Your task to perform on an android device: Open wifi settings Image 0: 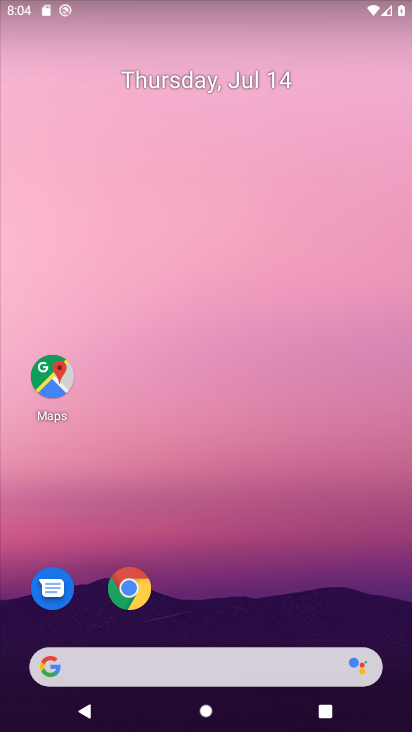
Step 0: drag from (335, 618) to (80, 79)
Your task to perform on an android device: Open wifi settings Image 1: 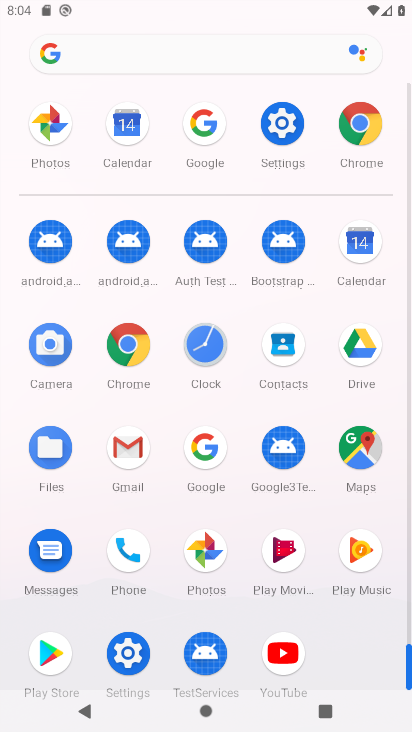
Step 1: click (275, 123)
Your task to perform on an android device: Open wifi settings Image 2: 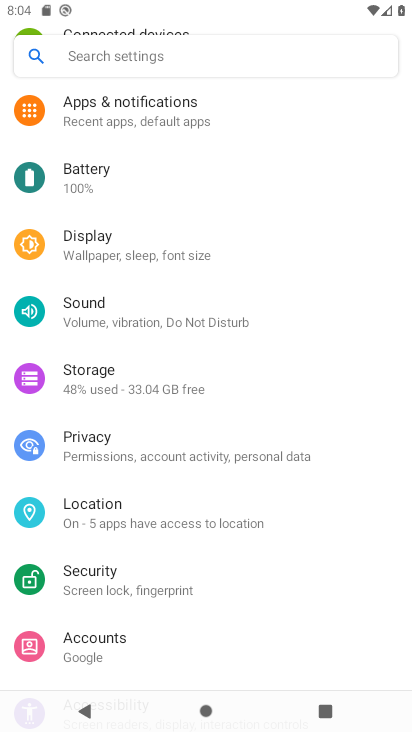
Step 2: drag from (338, 196) to (355, 344)
Your task to perform on an android device: Open wifi settings Image 3: 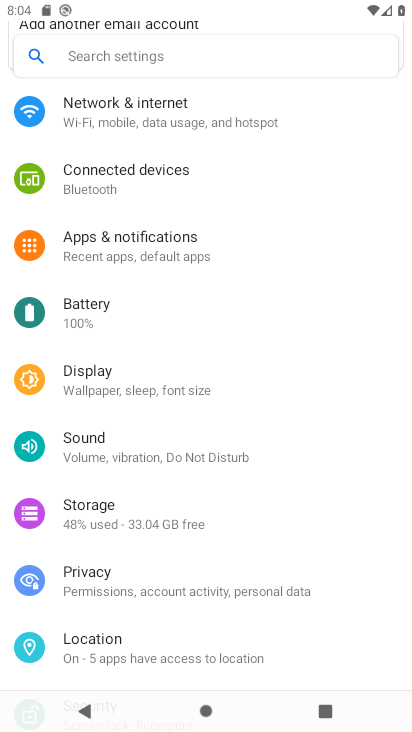
Step 3: drag from (350, 169) to (352, 243)
Your task to perform on an android device: Open wifi settings Image 4: 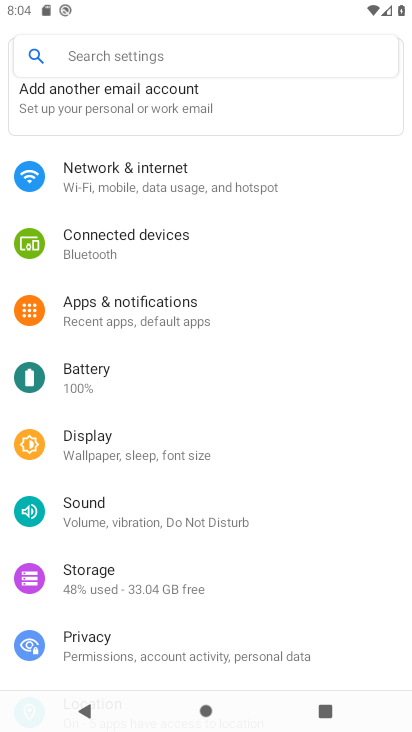
Step 4: drag from (349, 188) to (355, 301)
Your task to perform on an android device: Open wifi settings Image 5: 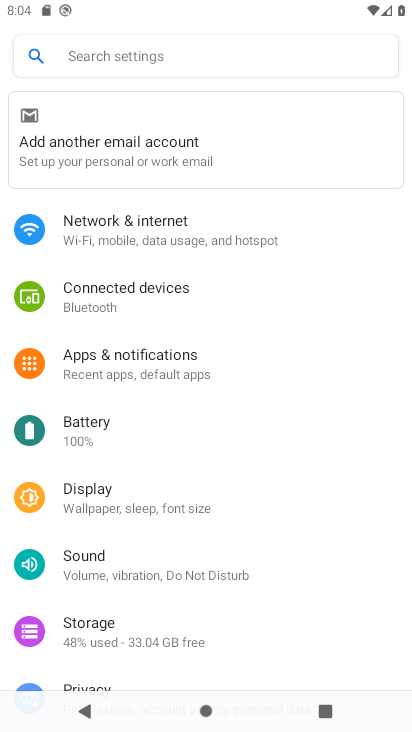
Step 5: drag from (329, 460) to (333, 369)
Your task to perform on an android device: Open wifi settings Image 6: 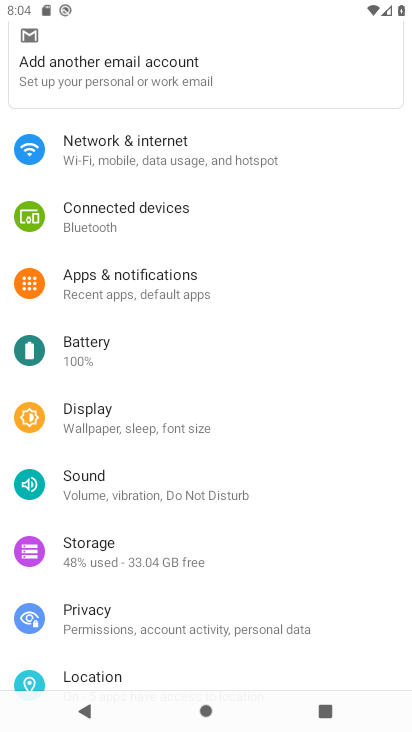
Step 6: drag from (347, 467) to (346, 383)
Your task to perform on an android device: Open wifi settings Image 7: 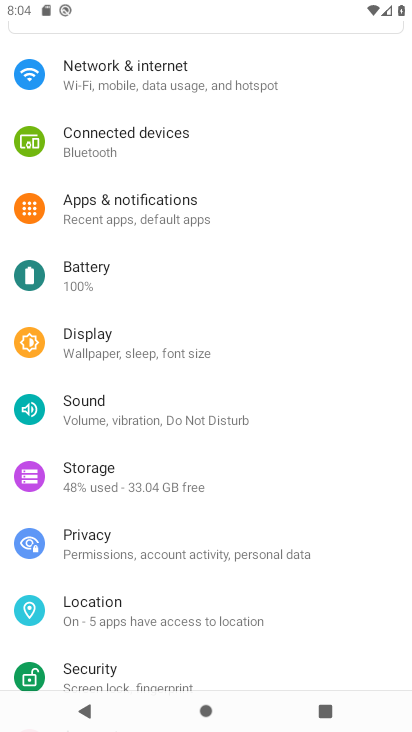
Step 7: drag from (340, 480) to (338, 380)
Your task to perform on an android device: Open wifi settings Image 8: 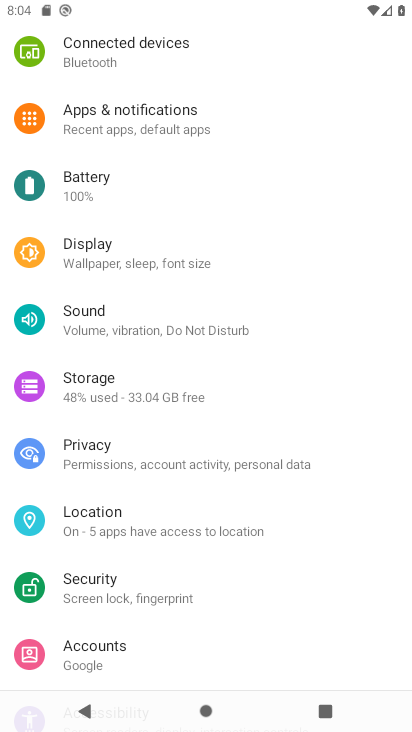
Step 8: drag from (338, 511) to (338, 418)
Your task to perform on an android device: Open wifi settings Image 9: 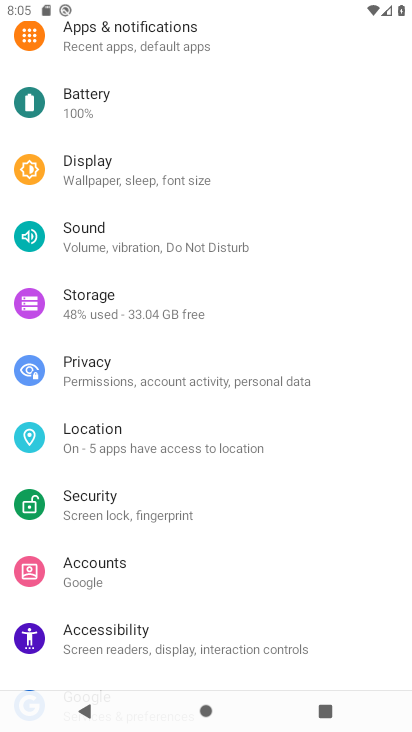
Step 9: drag from (332, 479) to (351, 311)
Your task to perform on an android device: Open wifi settings Image 10: 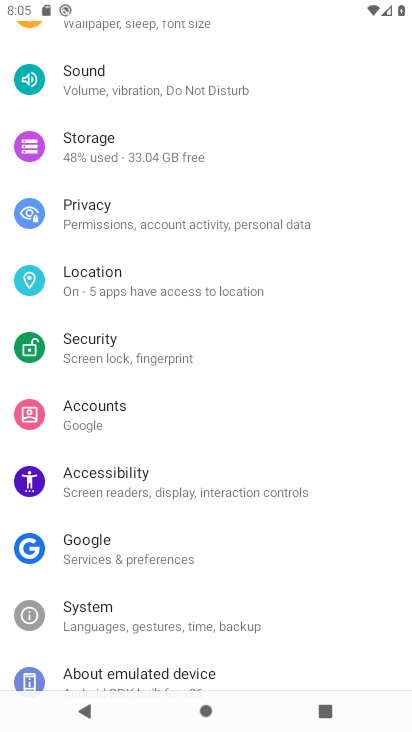
Step 10: drag from (359, 227) to (358, 334)
Your task to perform on an android device: Open wifi settings Image 11: 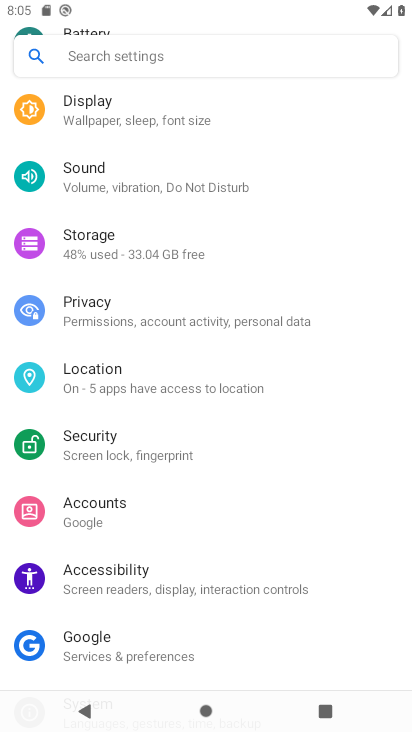
Step 11: drag from (359, 226) to (358, 327)
Your task to perform on an android device: Open wifi settings Image 12: 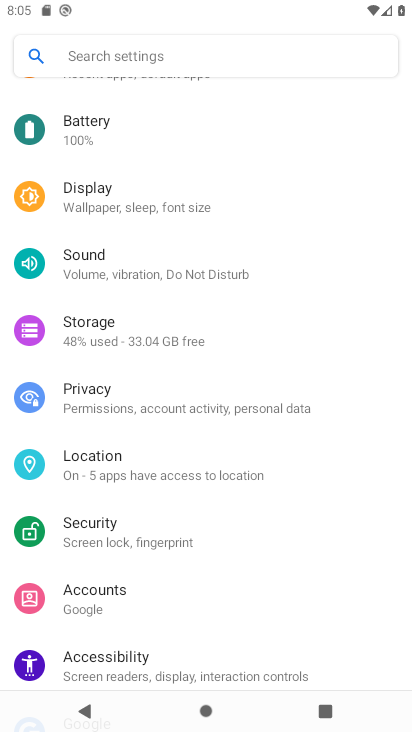
Step 12: drag from (352, 216) to (352, 316)
Your task to perform on an android device: Open wifi settings Image 13: 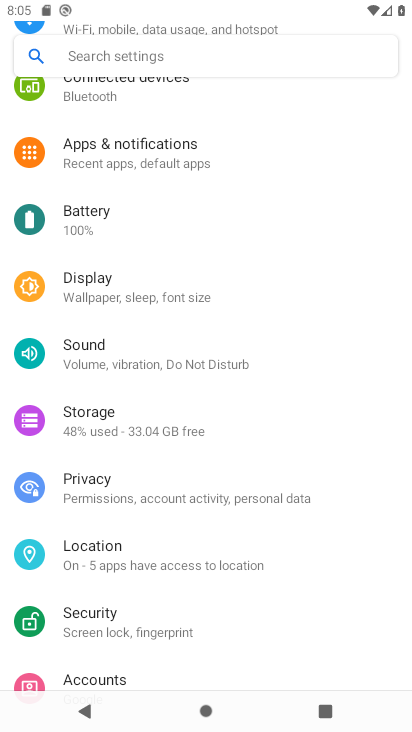
Step 13: drag from (348, 197) to (349, 294)
Your task to perform on an android device: Open wifi settings Image 14: 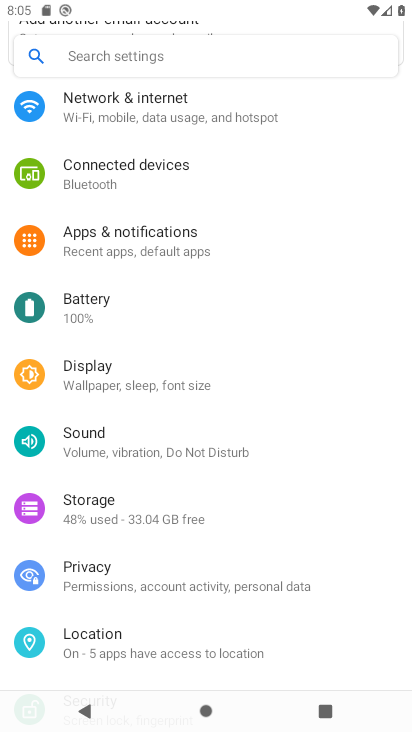
Step 14: drag from (340, 191) to (342, 353)
Your task to perform on an android device: Open wifi settings Image 15: 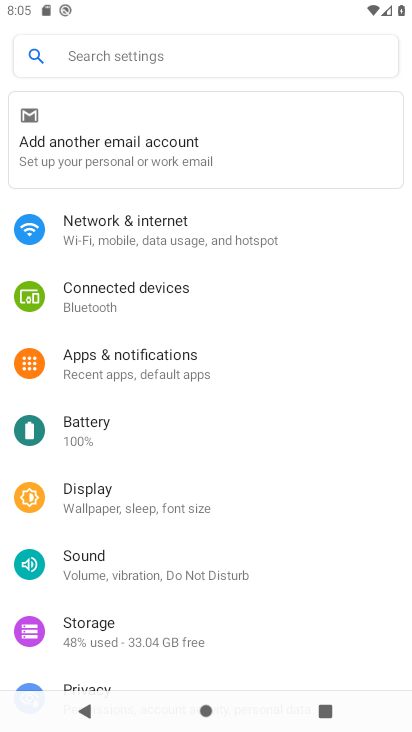
Step 15: click (280, 234)
Your task to perform on an android device: Open wifi settings Image 16: 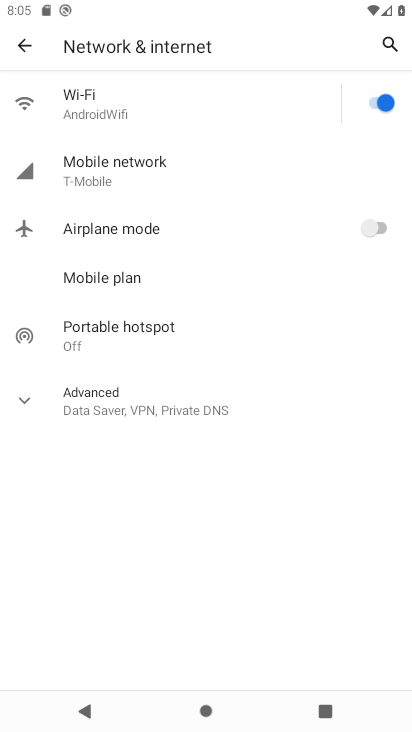
Step 16: click (120, 107)
Your task to perform on an android device: Open wifi settings Image 17: 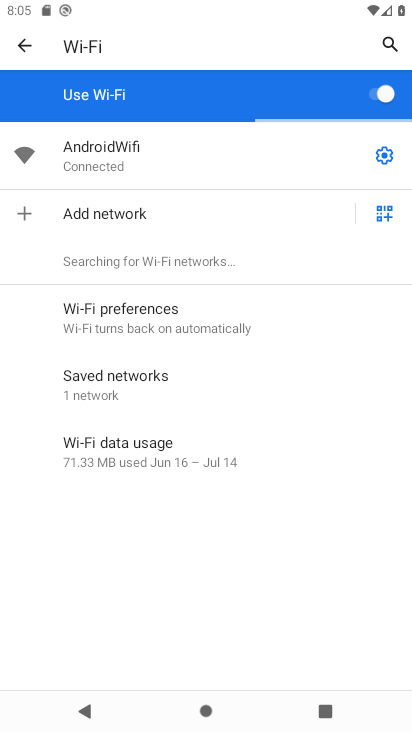
Step 17: task complete